Your task to perform on an android device: Open Google Image 0: 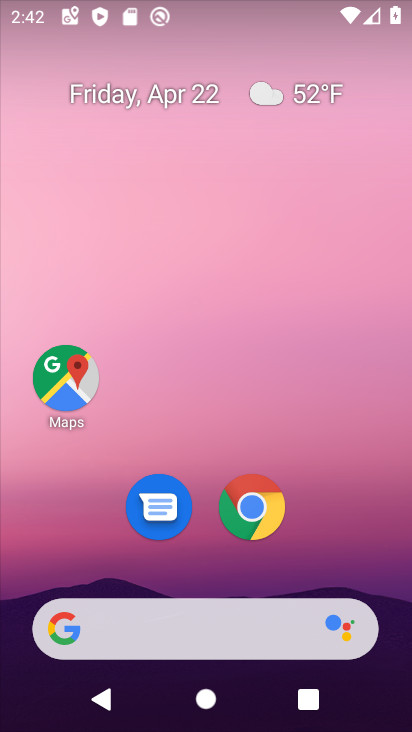
Step 0: drag from (198, 505) to (290, 52)
Your task to perform on an android device: Open Google Image 1: 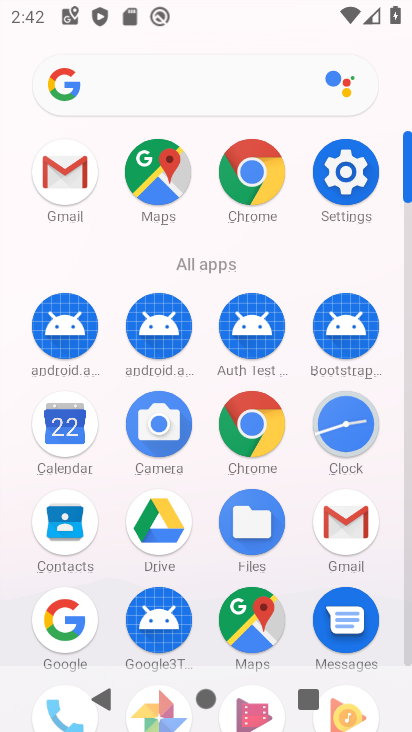
Step 1: click (50, 627)
Your task to perform on an android device: Open Google Image 2: 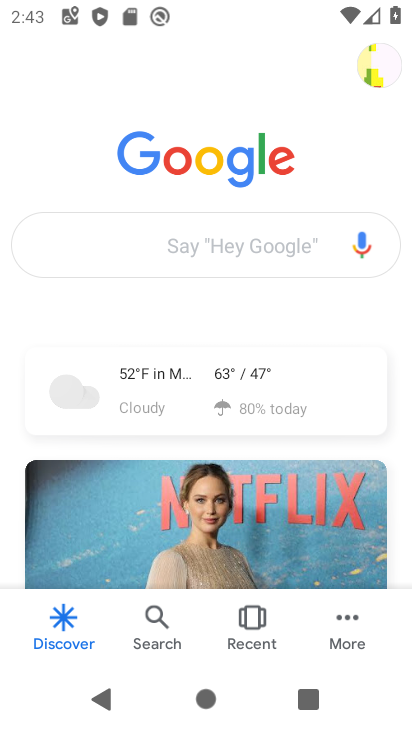
Step 2: task complete